Your task to perform on an android device: Open a new tab in the chrome app Image 0: 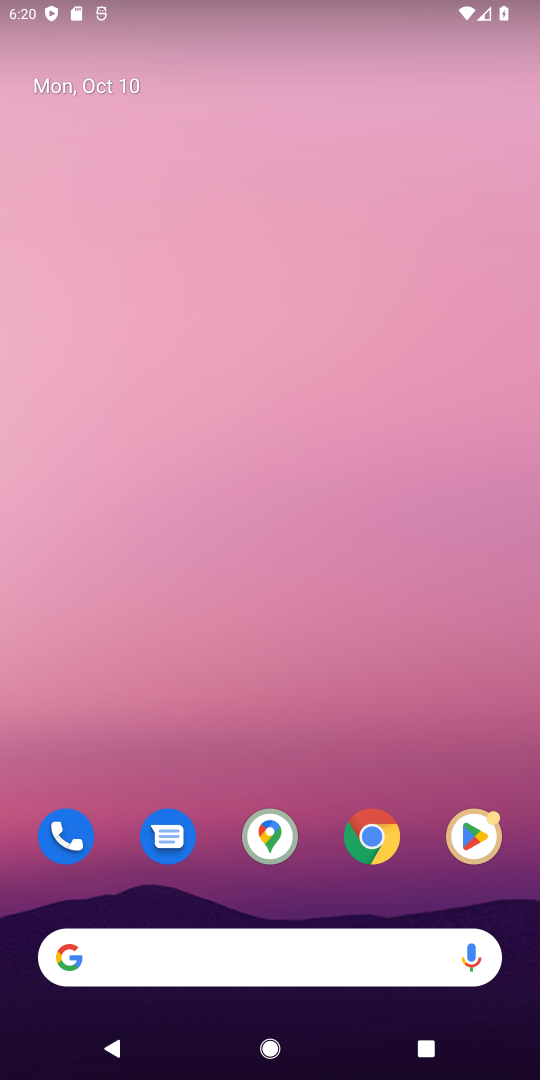
Step 0: click (373, 838)
Your task to perform on an android device: Open a new tab in the chrome app Image 1: 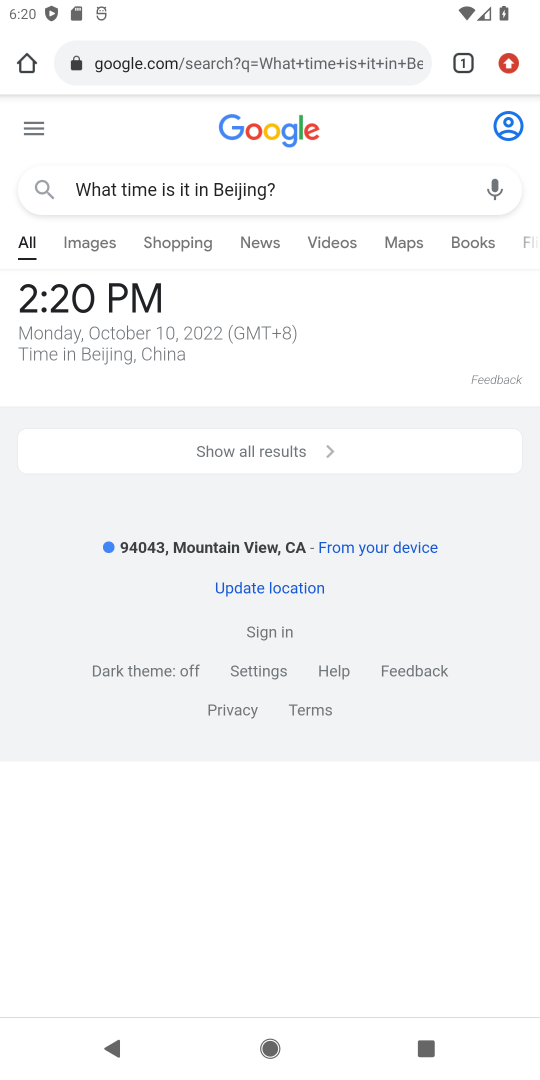
Step 1: click (465, 59)
Your task to perform on an android device: Open a new tab in the chrome app Image 2: 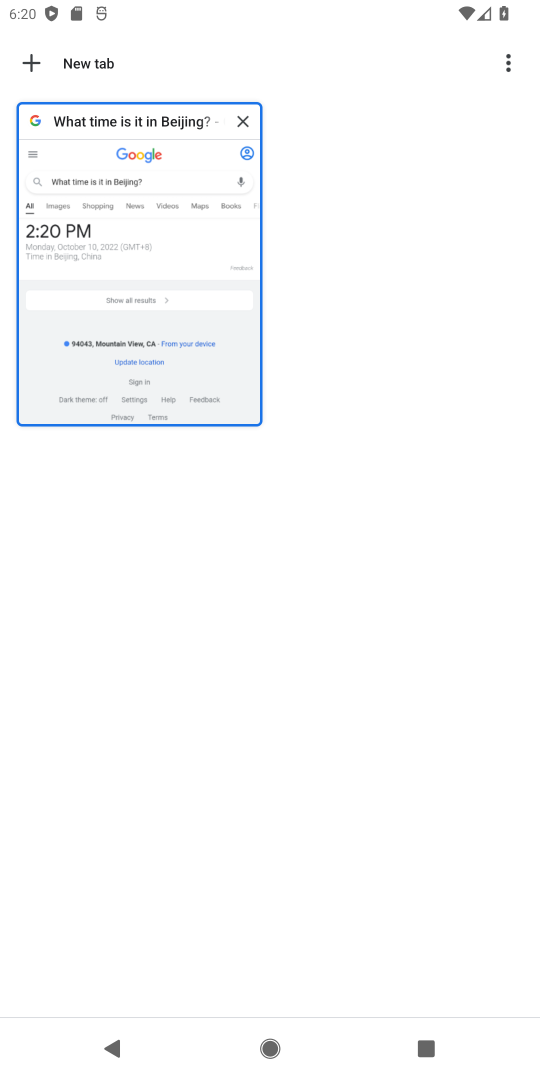
Step 2: click (29, 54)
Your task to perform on an android device: Open a new tab in the chrome app Image 3: 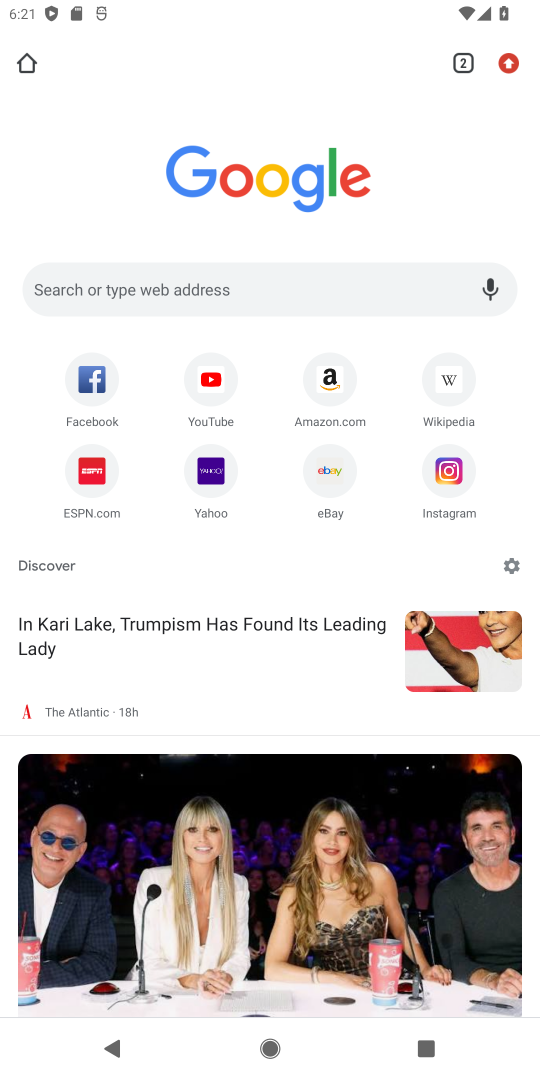
Step 3: task complete